Your task to perform on an android device: Open calendar and show me the third week of next month Image 0: 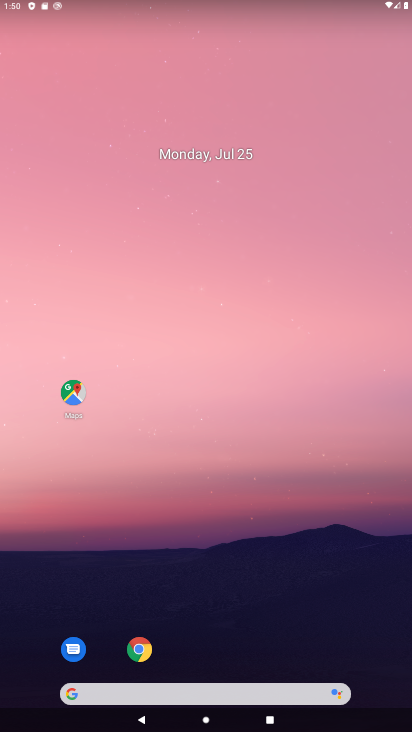
Step 0: drag from (377, 677) to (324, 220)
Your task to perform on an android device: Open calendar and show me the third week of next month Image 1: 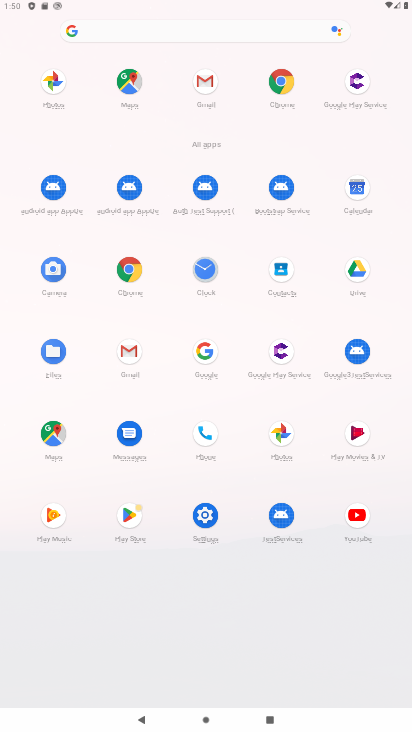
Step 1: click (358, 185)
Your task to perform on an android device: Open calendar and show me the third week of next month Image 2: 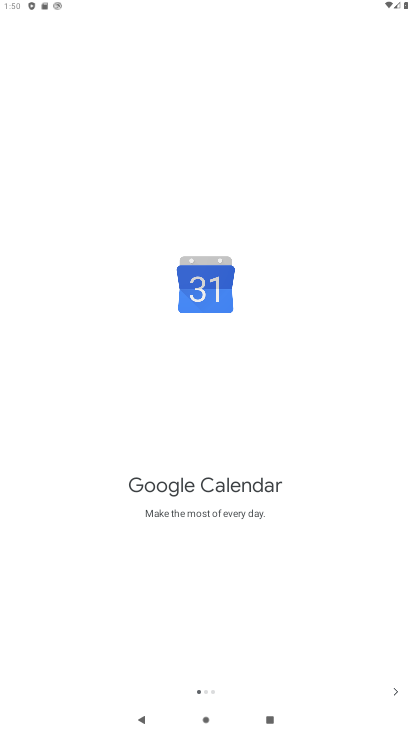
Step 2: click (397, 691)
Your task to perform on an android device: Open calendar and show me the third week of next month Image 3: 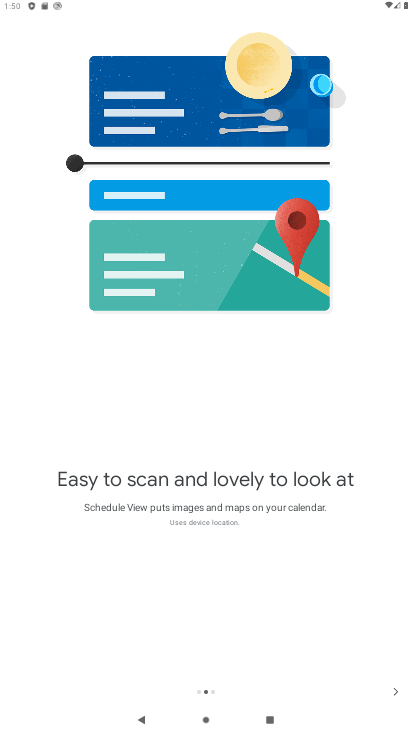
Step 3: click (394, 691)
Your task to perform on an android device: Open calendar and show me the third week of next month Image 4: 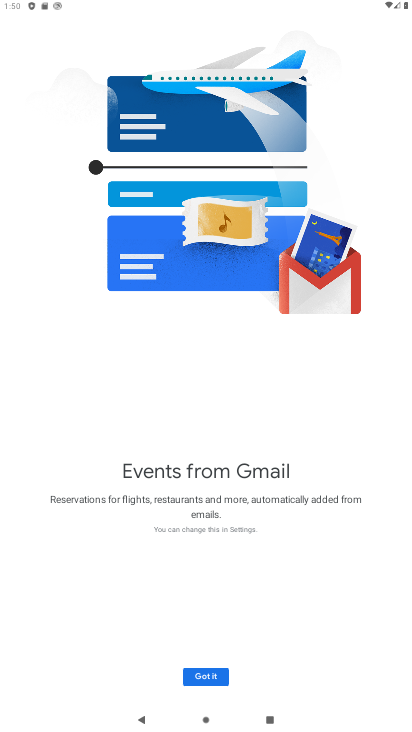
Step 4: click (206, 678)
Your task to perform on an android device: Open calendar and show me the third week of next month Image 5: 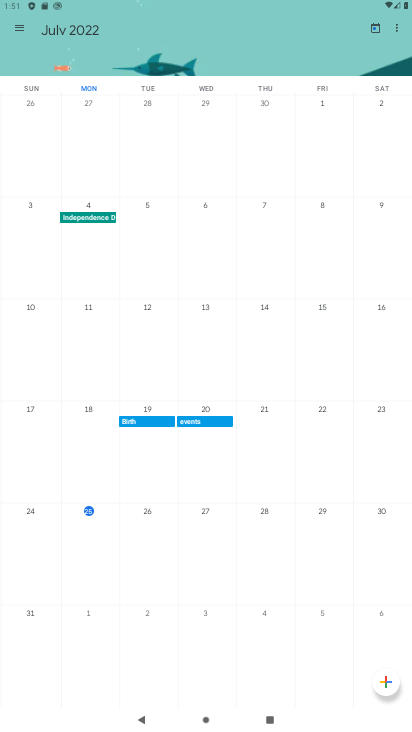
Step 5: click (20, 30)
Your task to perform on an android device: Open calendar and show me the third week of next month Image 6: 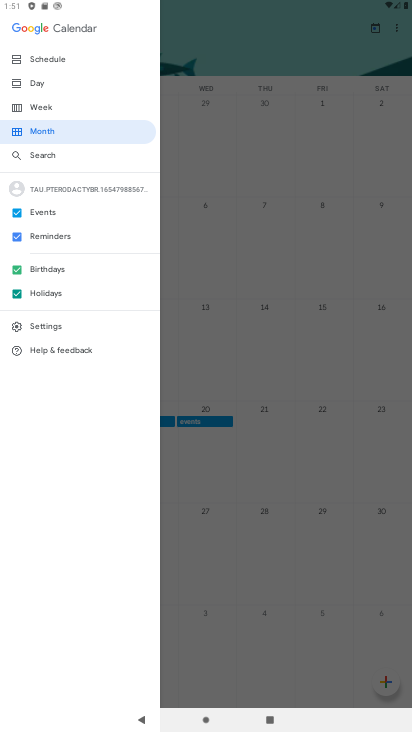
Step 6: click (42, 106)
Your task to perform on an android device: Open calendar and show me the third week of next month Image 7: 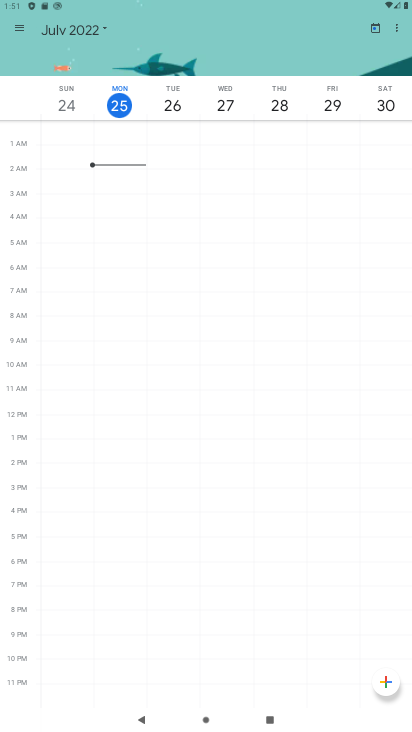
Step 7: click (101, 31)
Your task to perform on an android device: Open calendar and show me the third week of next month Image 8: 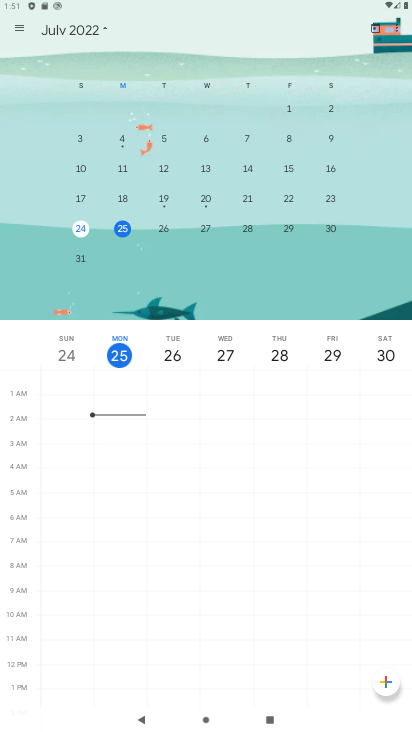
Step 8: drag from (333, 226) to (45, 211)
Your task to perform on an android device: Open calendar and show me the third week of next month Image 9: 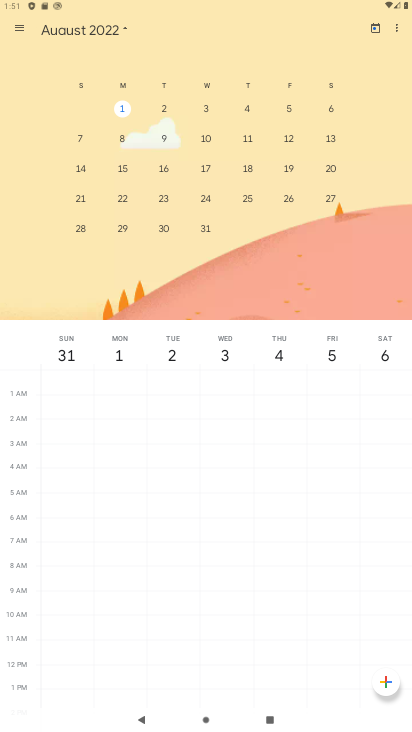
Step 9: click (80, 194)
Your task to perform on an android device: Open calendar and show me the third week of next month Image 10: 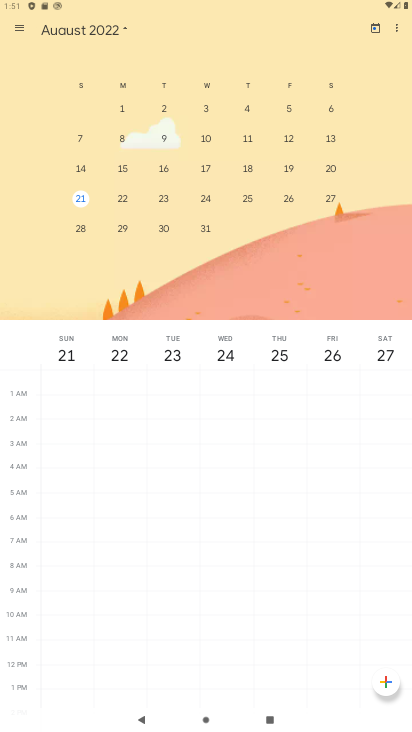
Step 10: task complete